Your task to perform on an android device: Go to Reddit.com Image 0: 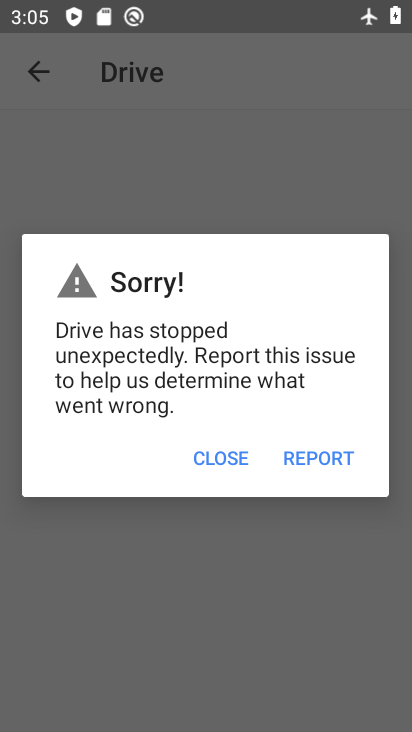
Step 0: press home button
Your task to perform on an android device: Go to Reddit.com Image 1: 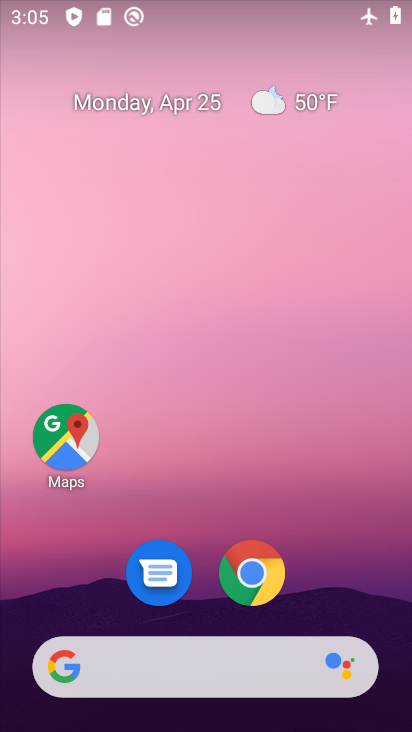
Step 1: drag from (390, 515) to (379, 141)
Your task to perform on an android device: Go to Reddit.com Image 2: 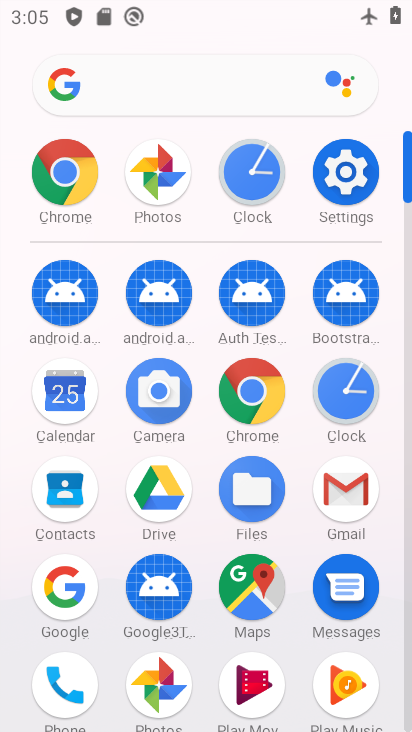
Step 2: click (60, 175)
Your task to perform on an android device: Go to Reddit.com Image 3: 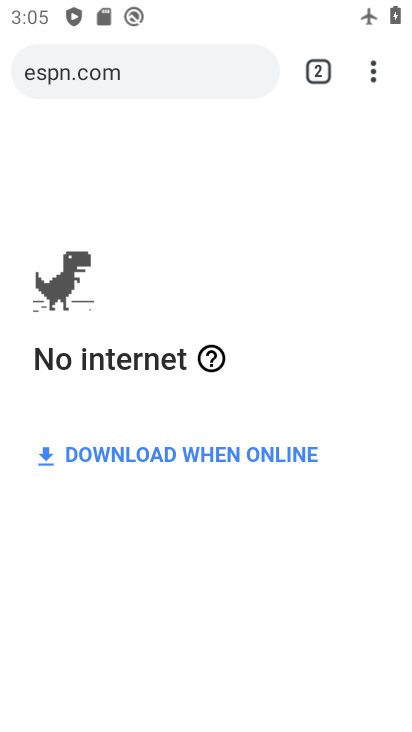
Step 3: click (164, 57)
Your task to perform on an android device: Go to Reddit.com Image 4: 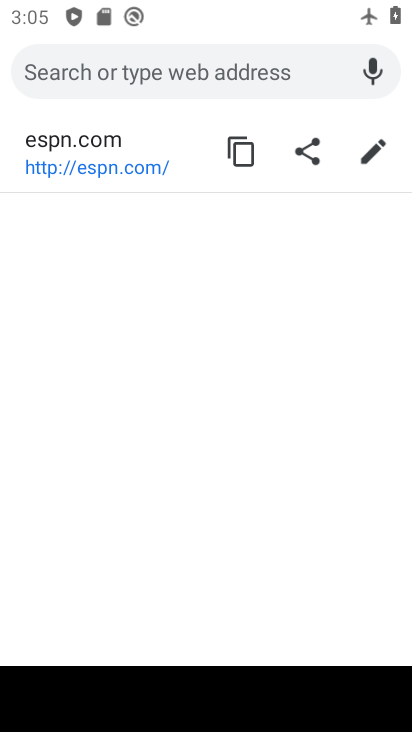
Step 4: type "reddit.com"
Your task to perform on an android device: Go to Reddit.com Image 5: 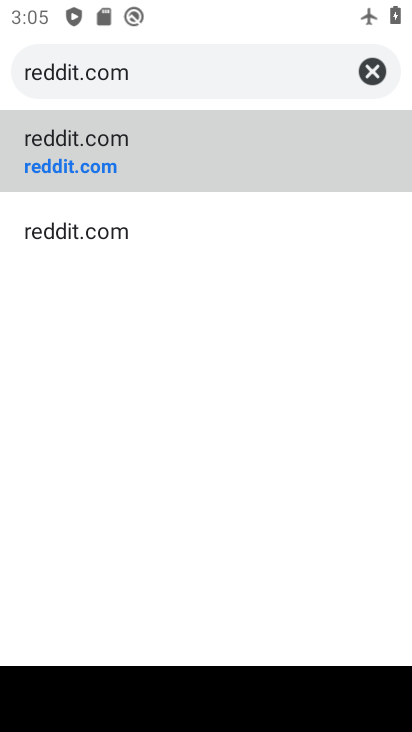
Step 5: click (88, 131)
Your task to perform on an android device: Go to Reddit.com Image 6: 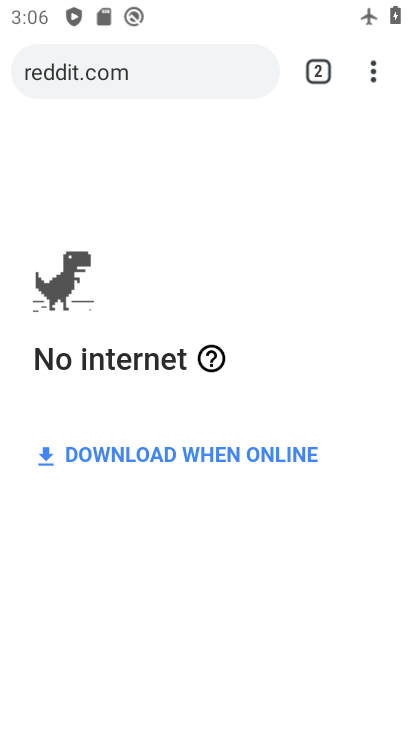
Step 6: task complete